Your task to perform on an android device: Go to sound settings Image 0: 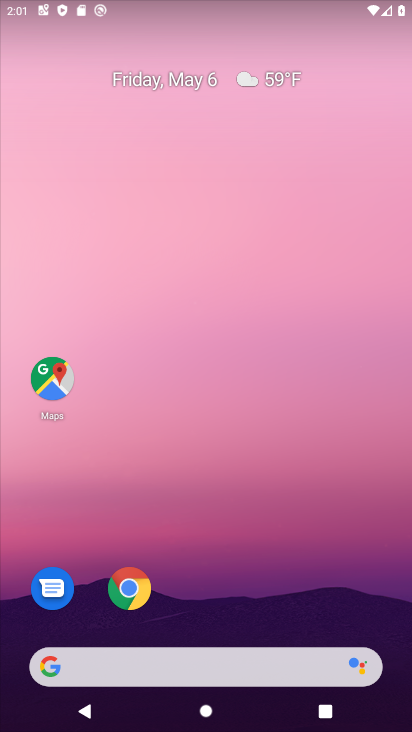
Step 0: drag from (223, 617) to (246, 91)
Your task to perform on an android device: Go to sound settings Image 1: 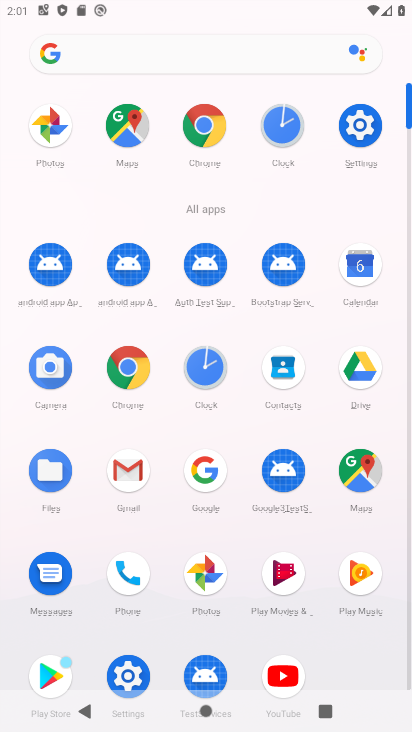
Step 1: click (340, 119)
Your task to perform on an android device: Go to sound settings Image 2: 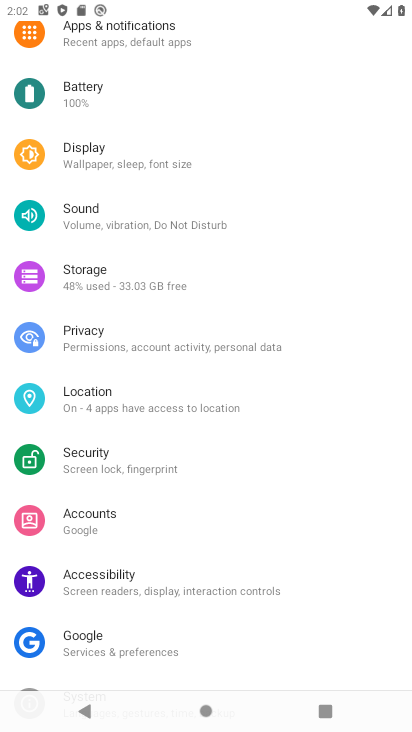
Step 2: click (160, 227)
Your task to perform on an android device: Go to sound settings Image 3: 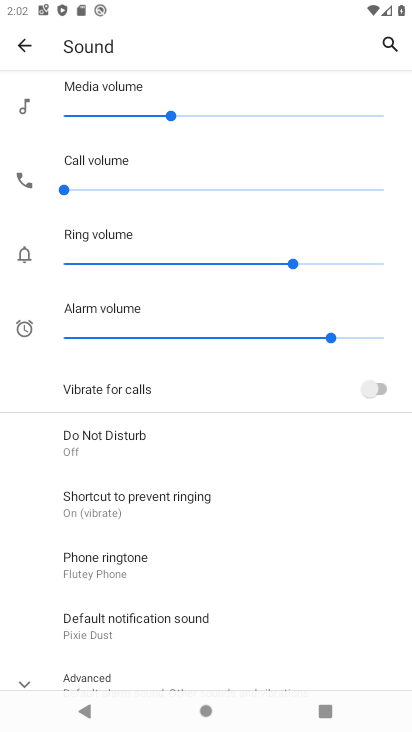
Step 3: task complete